Your task to perform on an android device: turn off notifications in google photos Image 0: 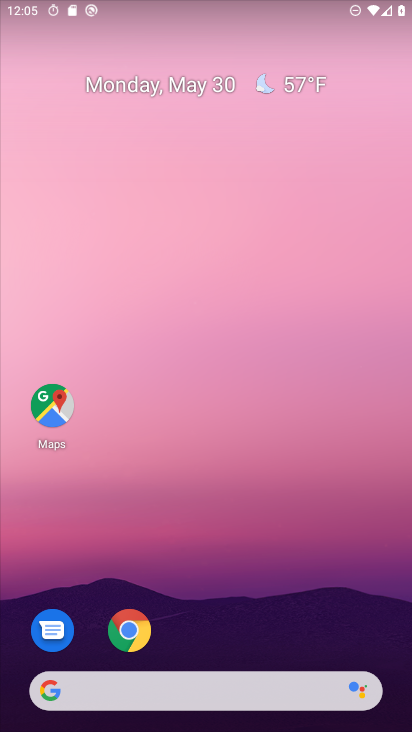
Step 0: drag from (228, 725) to (142, 186)
Your task to perform on an android device: turn off notifications in google photos Image 1: 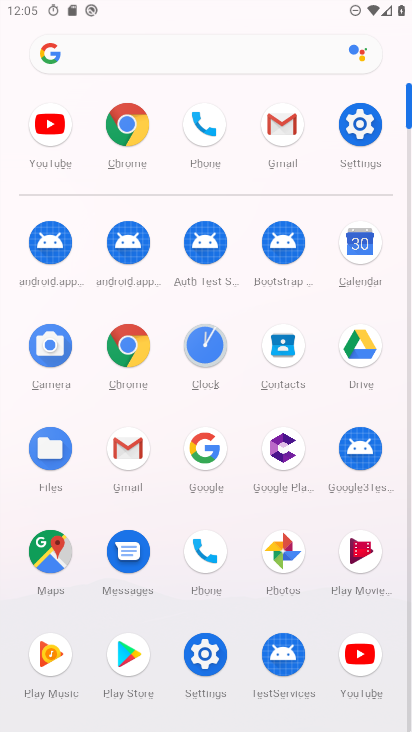
Step 1: click (268, 539)
Your task to perform on an android device: turn off notifications in google photos Image 2: 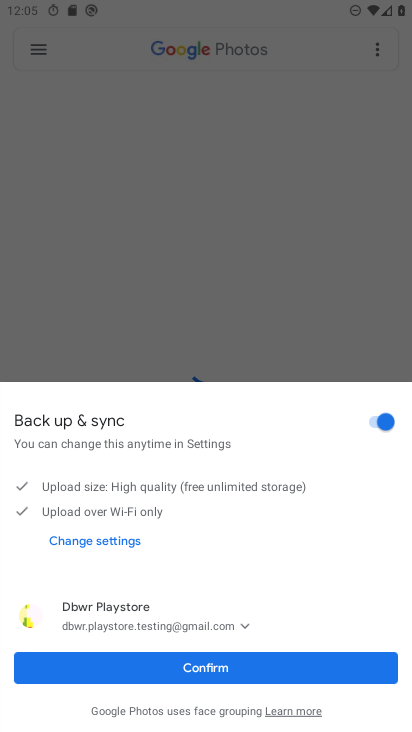
Step 2: click (255, 672)
Your task to perform on an android device: turn off notifications in google photos Image 3: 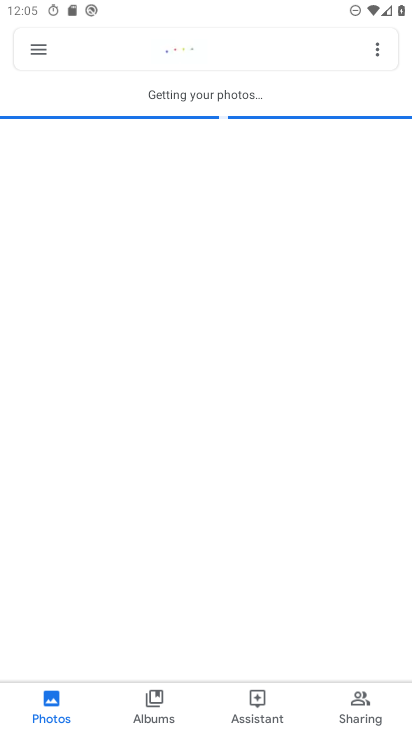
Step 3: click (29, 44)
Your task to perform on an android device: turn off notifications in google photos Image 4: 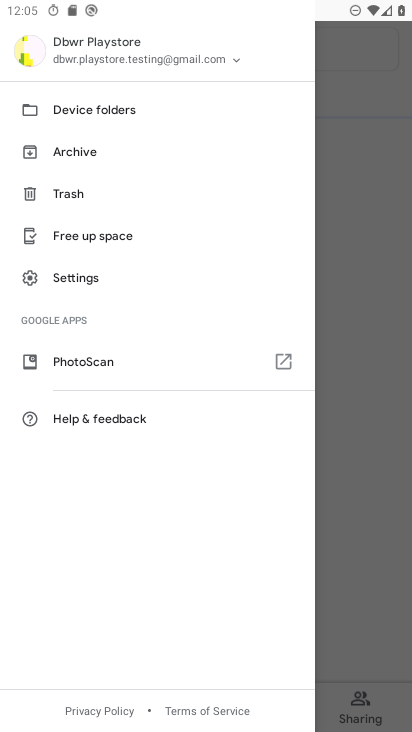
Step 4: click (70, 271)
Your task to perform on an android device: turn off notifications in google photos Image 5: 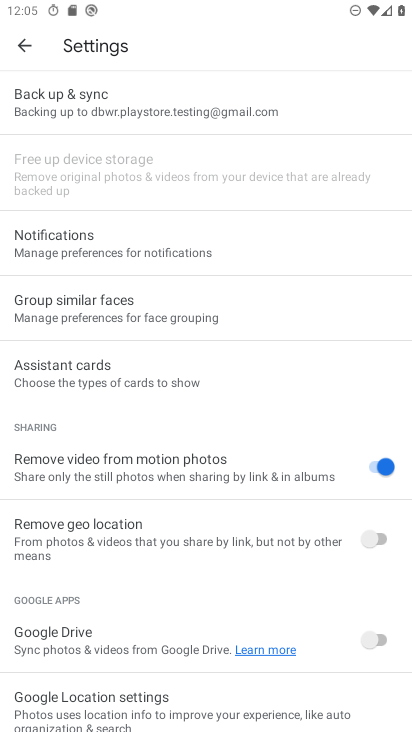
Step 5: click (126, 251)
Your task to perform on an android device: turn off notifications in google photos Image 6: 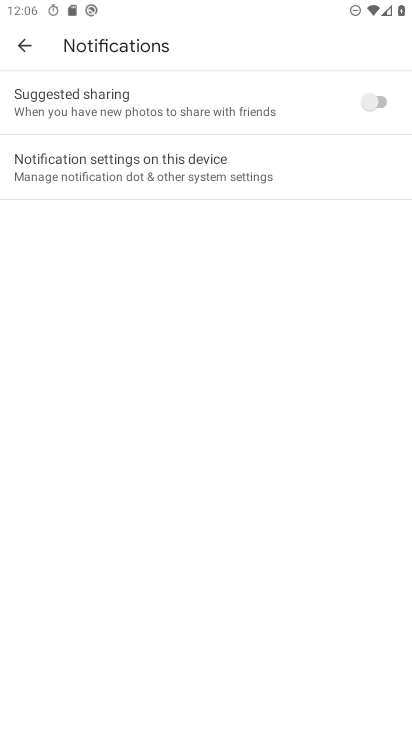
Step 6: click (232, 175)
Your task to perform on an android device: turn off notifications in google photos Image 7: 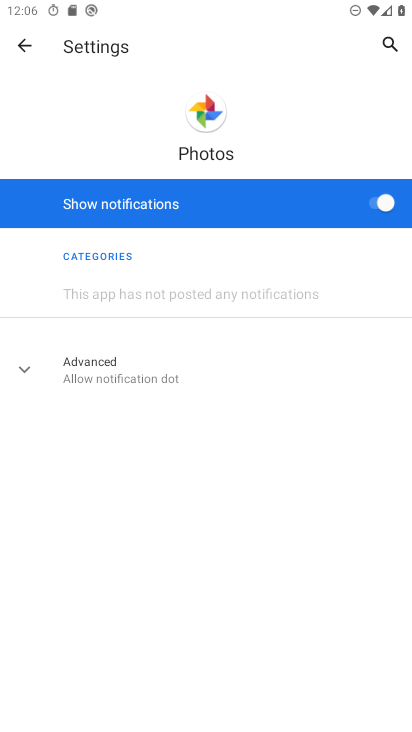
Step 7: click (377, 202)
Your task to perform on an android device: turn off notifications in google photos Image 8: 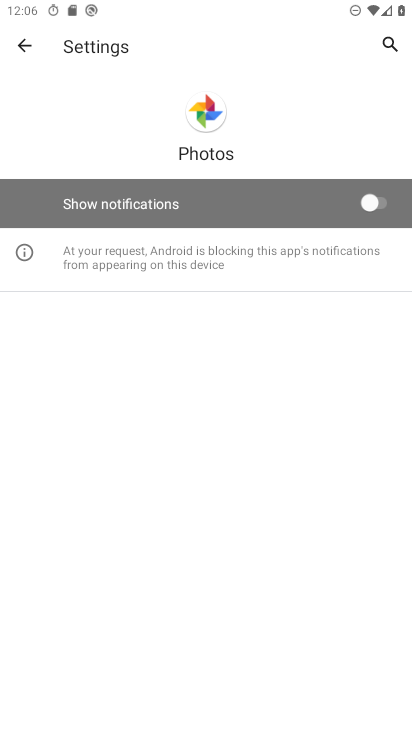
Step 8: task complete